Your task to perform on an android device: open wifi settings Image 0: 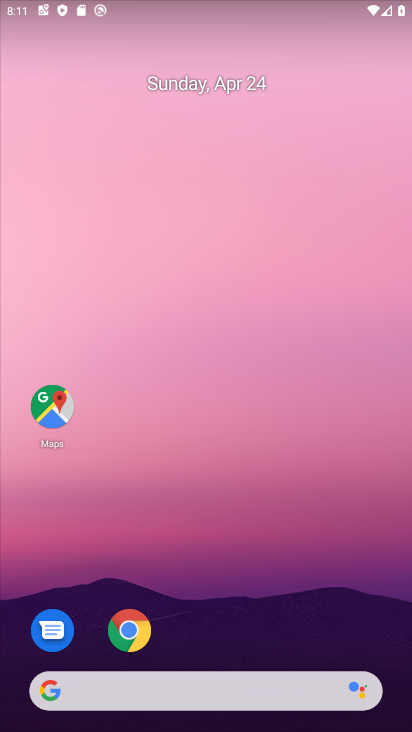
Step 0: drag from (271, 311) to (346, 49)
Your task to perform on an android device: open wifi settings Image 1: 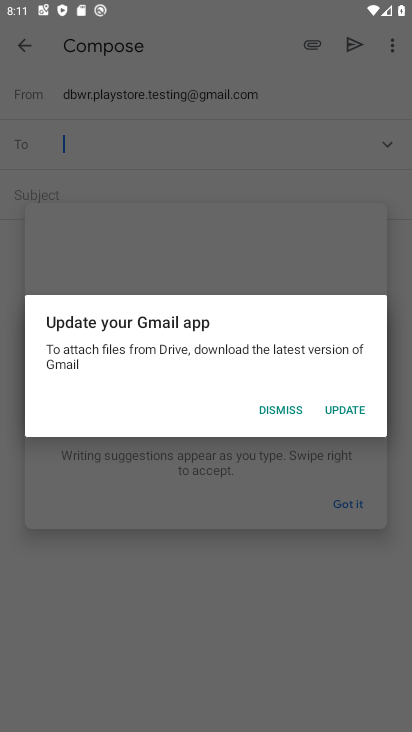
Step 1: press home button
Your task to perform on an android device: open wifi settings Image 2: 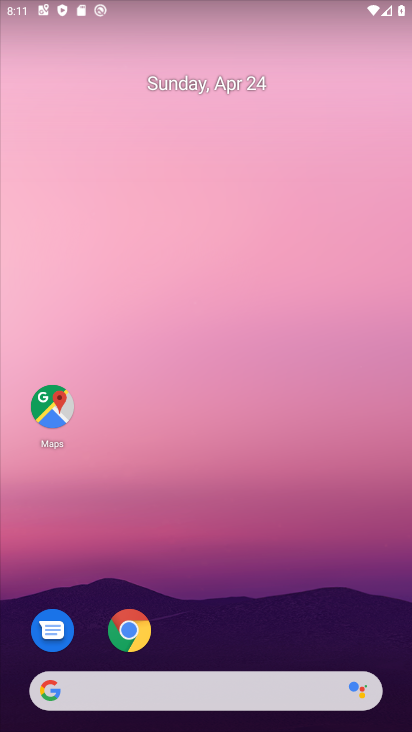
Step 2: drag from (260, 524) to (304, 172)
Your task to perform on an android device: open wifi settings Image 3: 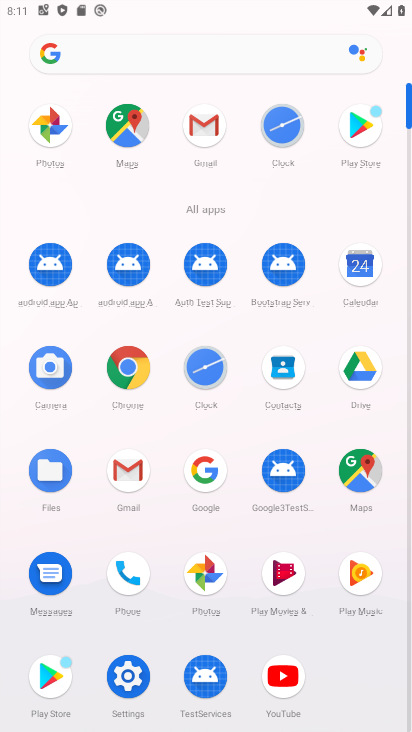
Step 3: click (121, 669)
Your task to perform on an android device: open wifi settings Image 4: 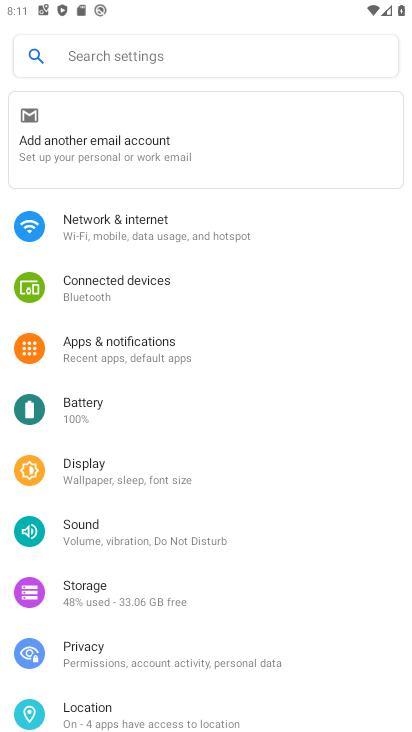
Step 4: click (160, 235)
Your task to perform on an android device: open wifi settings Image 5: 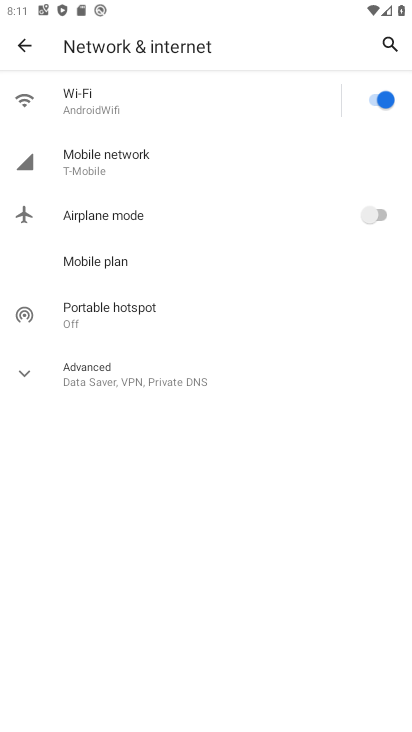
Step 5: click (167, 107)
Your task to perform on an android device: open wifi settings Image 6: 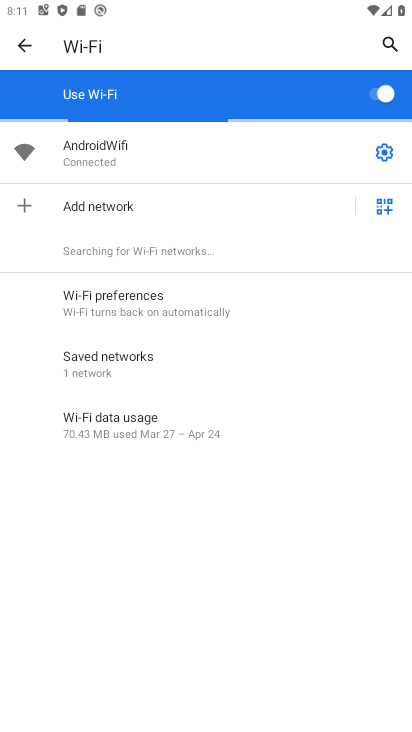
Step 6: task complete